Your task to perform on an android device: turn on translation in the chrome app Image 0: 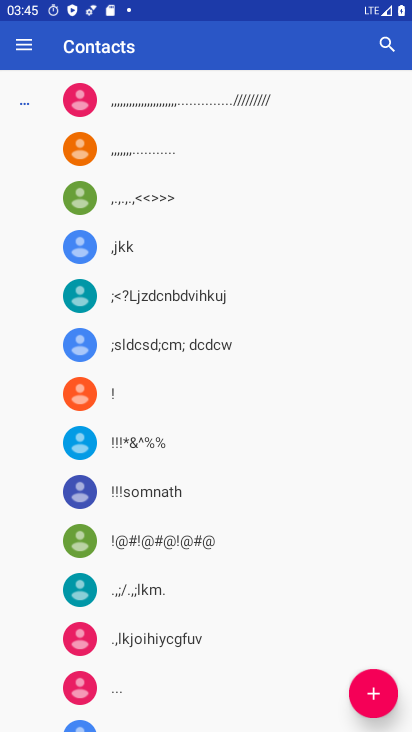
Step 0: press home button
Your task to perform on an android device: turn on translation in the chrome app Image 1: 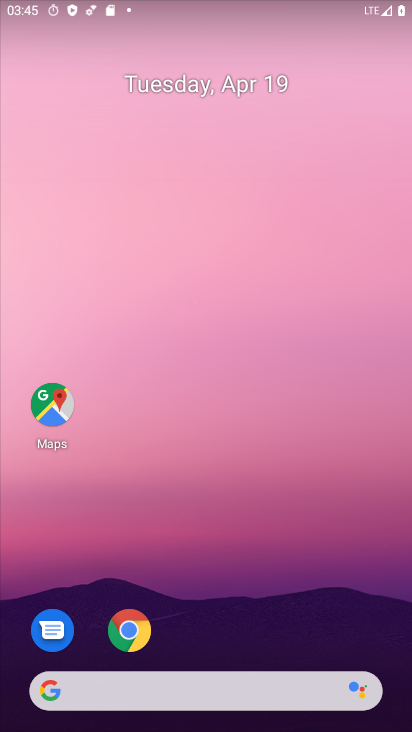
Step 1: click (117, 636)
Your task to perform on an android device: turn on translation in the chrome app Image 2: 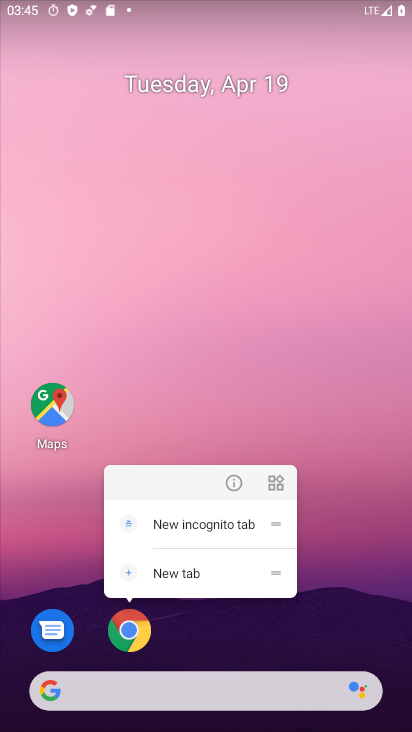
Step 2: click (129, 629)
Your task to perform on an android device: turn on translation in the chrome app Image 3: 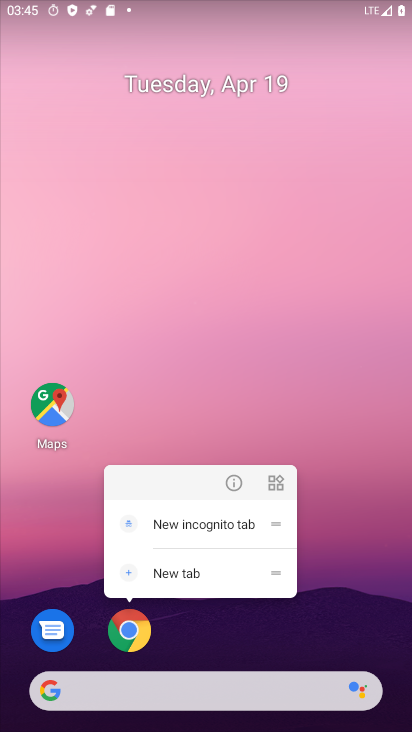
Step 3: click (133, 623)
Your task to perform on an android device: turn on translation in the chrome app Image 4: 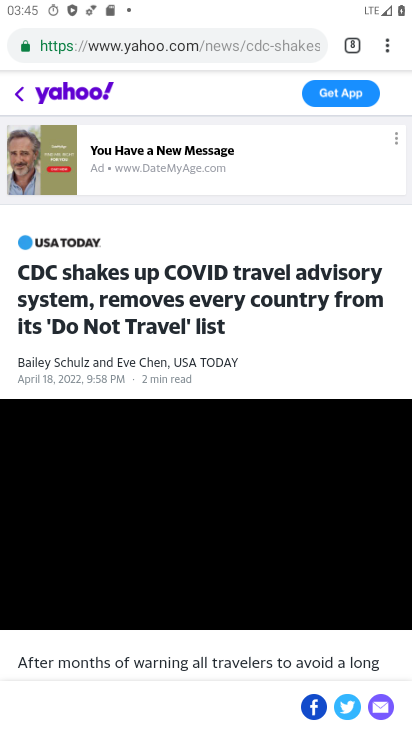
Step 4: click (128, 624)
Your task to perform on an android device: turn on translation in the chrome app Image 5: 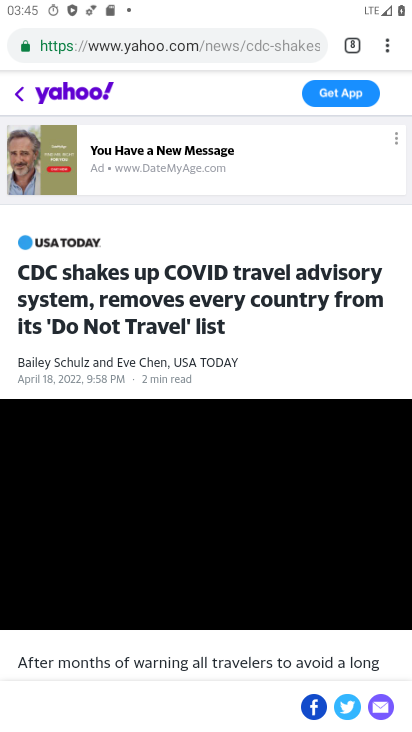
Step 5: click (387, 42)
Your task to perform on an android device: turn on translation in the chrome app Image 6: 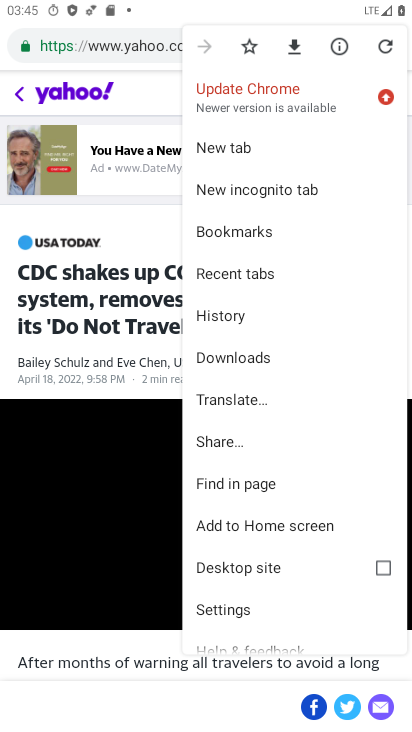
Step 6: click (235, 604)
Your task to perform on an android device: turn on translation in the chrome app Image 7: 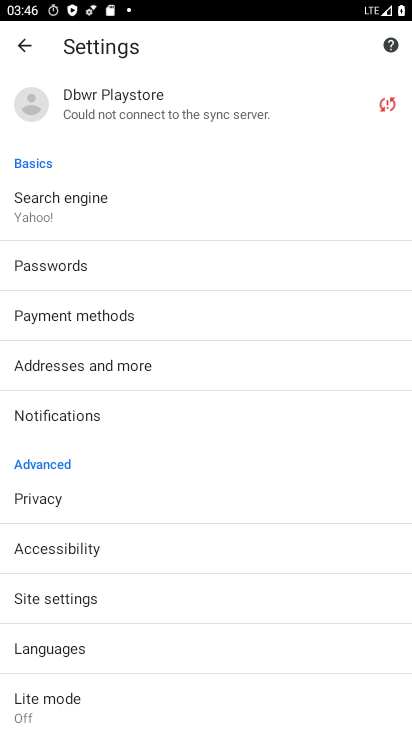
Step 7: click (57, 649)
Your task to perform on an android device: turn on translation in the chrome app Image 8: 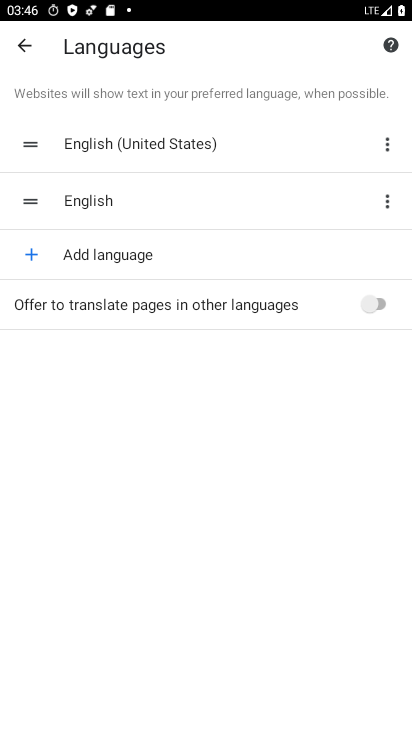
Step 8: click (375, 295)
Your task to perform on an android device: turn on translation in the chrome app Image 9: 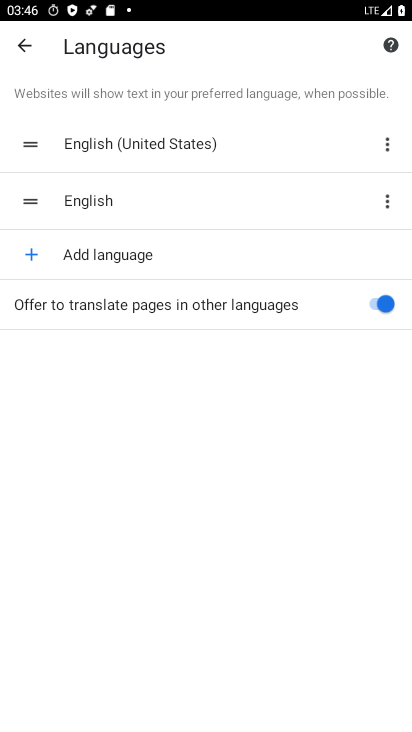
Step 9: task complete